Your task to perform on an android device: refresh tabs in the chrome app Image 0: 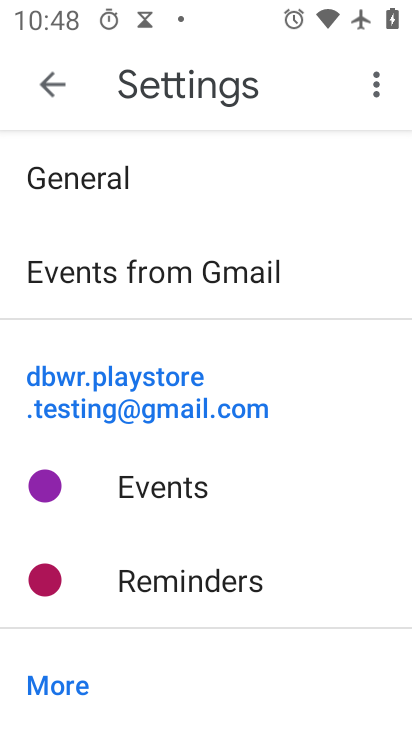
Step 0: press home button
Your task to perform on an android device: refresh tabs in the chrome app Image 1: 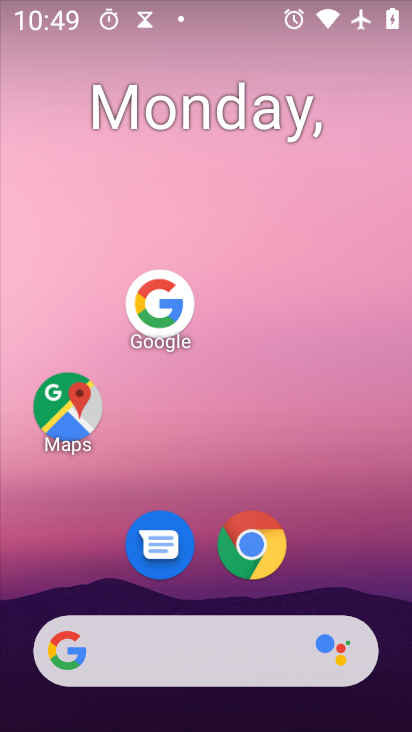
Step 1: click (247, 558)
Your task to perform on an android device: refresh tabs in the chrome app Image 2: 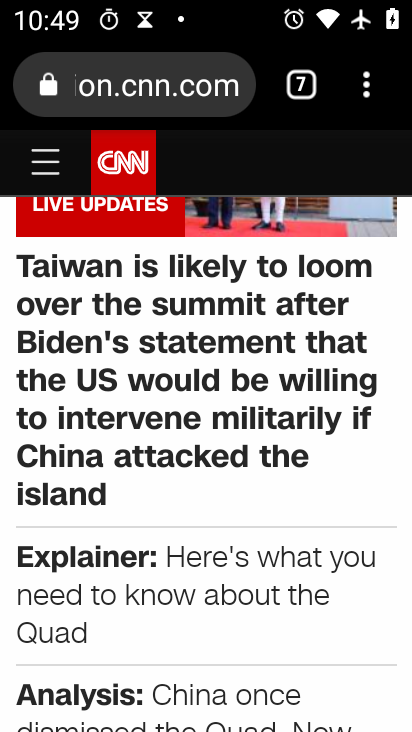
Step 2: click (363, 108)
Your task to perform on an android device: refresh tabs in the chrome app Image 3: 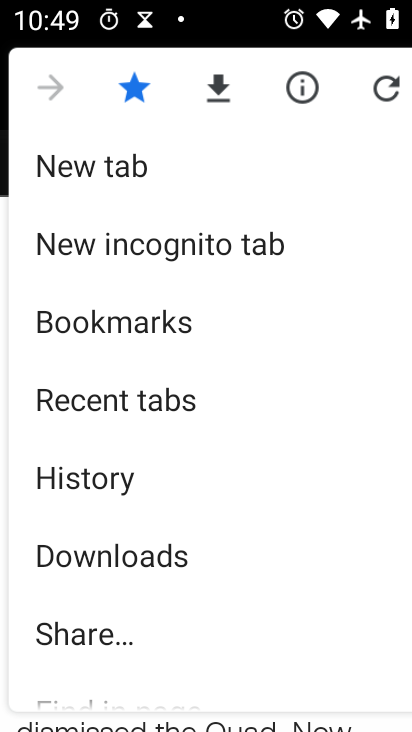
Step 3: click (375, 92)
Your task to perform on an android device: refresh tabs in the chrome app Image 4: 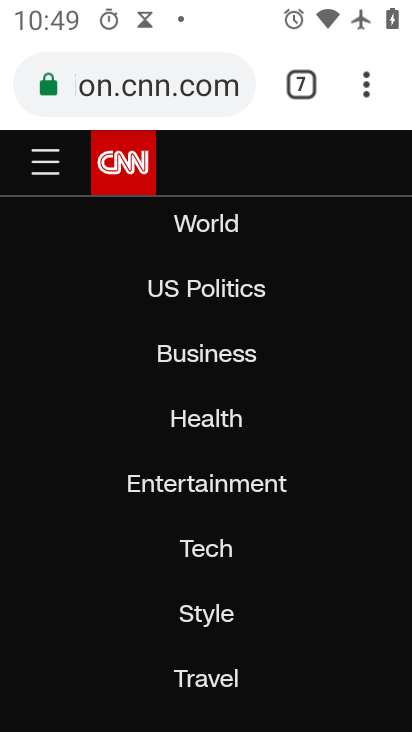
Step 4: task complete